Your task to perform on an android device: Open battery settings Image 0: 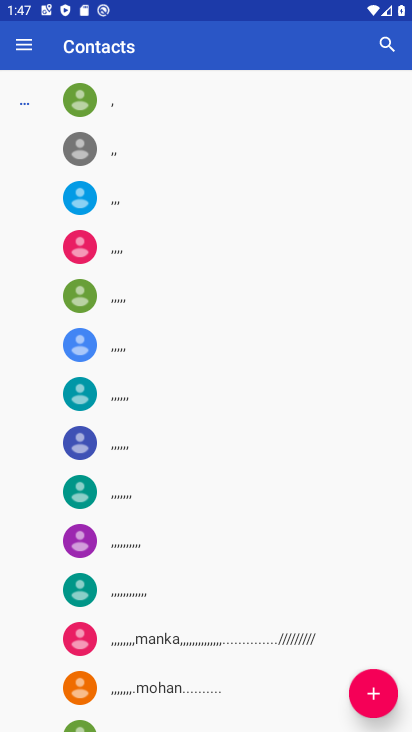
Step 0: press home button
Your task to perform on an android device: Open battery settings Image 1: 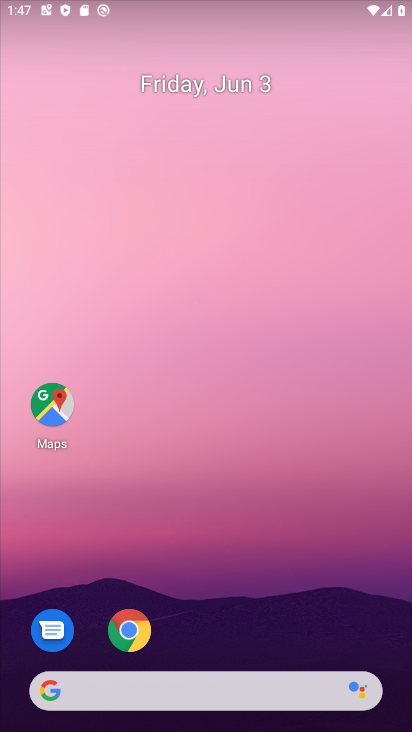
Step 1: drag from (202, 729) to (167, 96)
Your task to perform on an android device: Open battery settings Image 2: 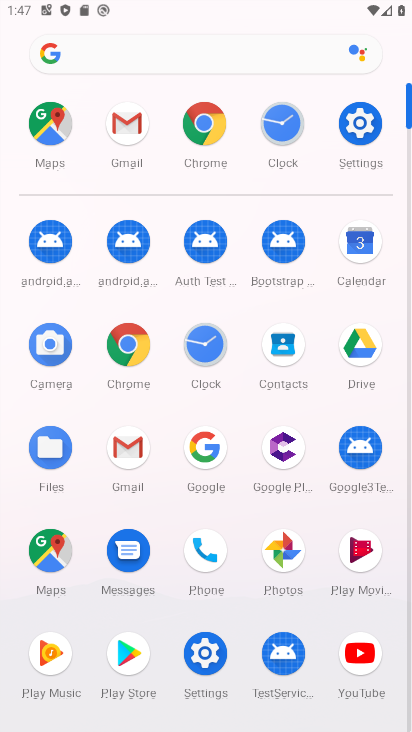
Step 2: click (351, 120)
Your task to perform on an android device: Open battery settings Image 3: 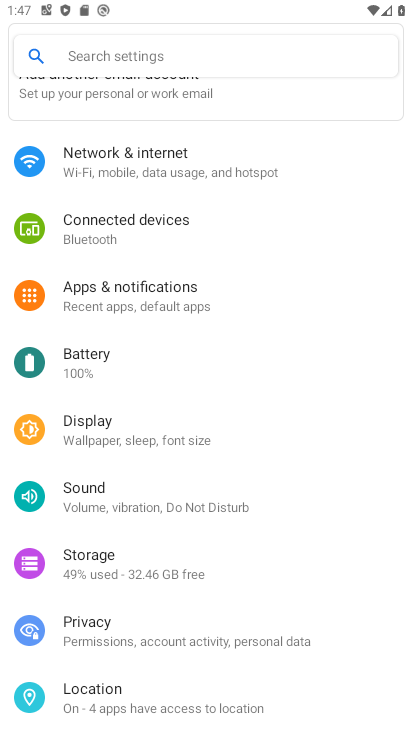
Step 3: click (81, 360)
Your task to perform on an android device: Open battery settings Image 4: 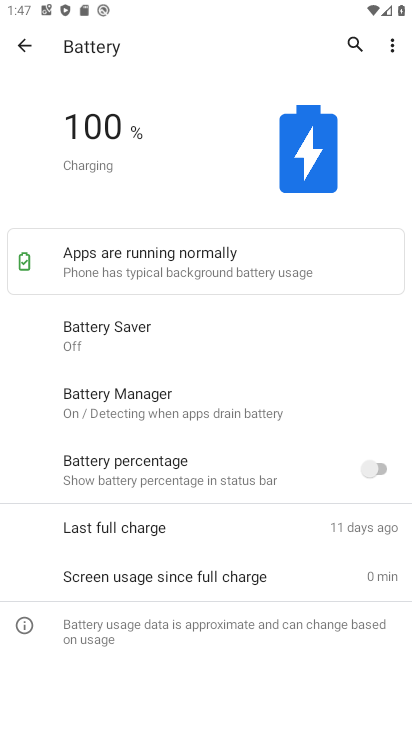
Step 4: task complete